Your task to perform on an android device: turn on data saver in the chrome app Image 0: 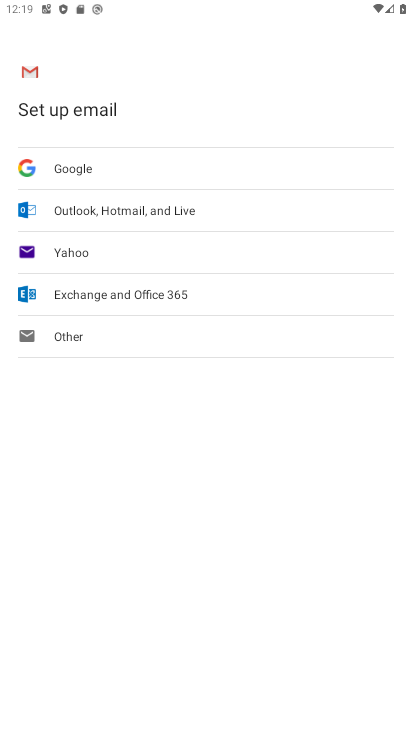
Step 0: press back button
Your task to perform on an android device: turn on data saver in the chrome app Image 1: 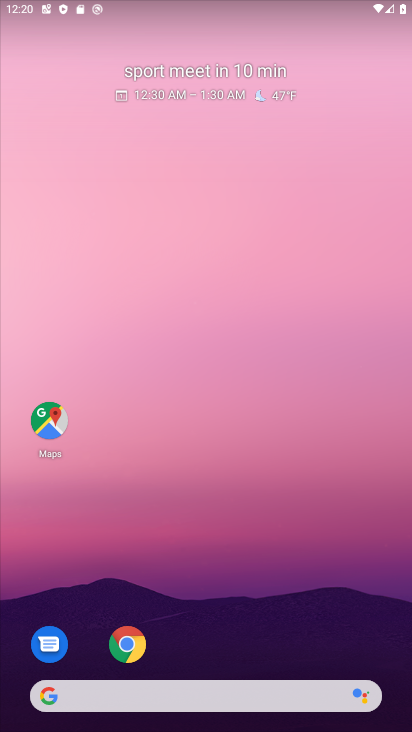
Step 1: click (124, 631)
Your task to perform on an android device: turn on data saver in the chrome app Image 2: 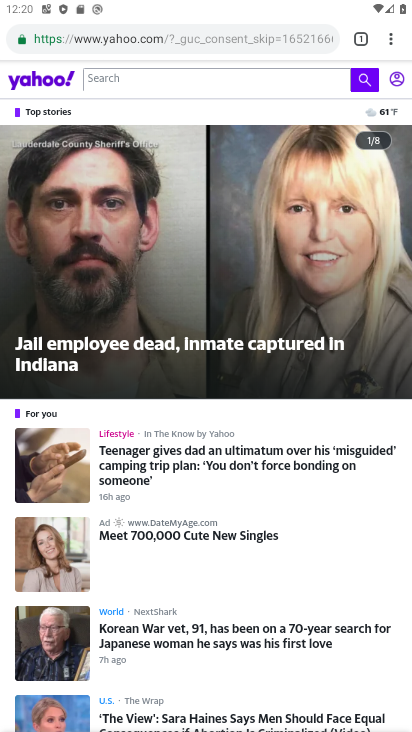
Step 2: click (371, 25)
Your task to perform on an android device: turn on data saver in the chrome app Image 3: 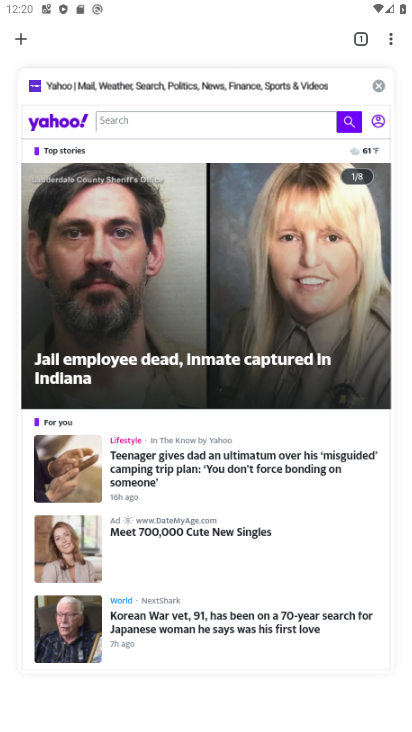
Step 3: click (185, 134)
Your task to perform on an android device: turn on data saver in the chrome app Image 4: 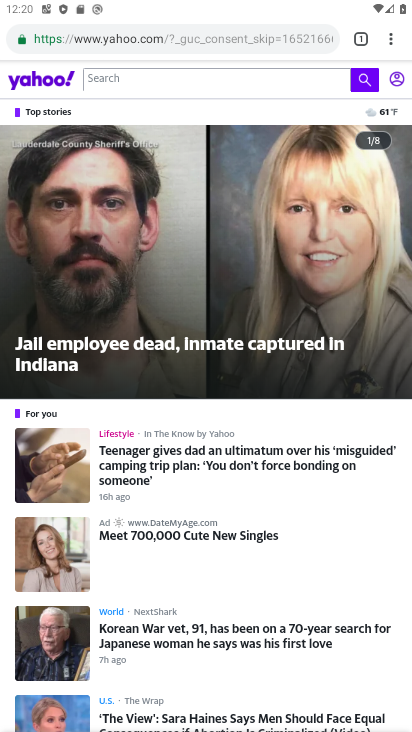
Step 4: drag from (396, 34) to (258, 460)
Your task to perform on an android device: turn on data saver in the chrome app Image 5: 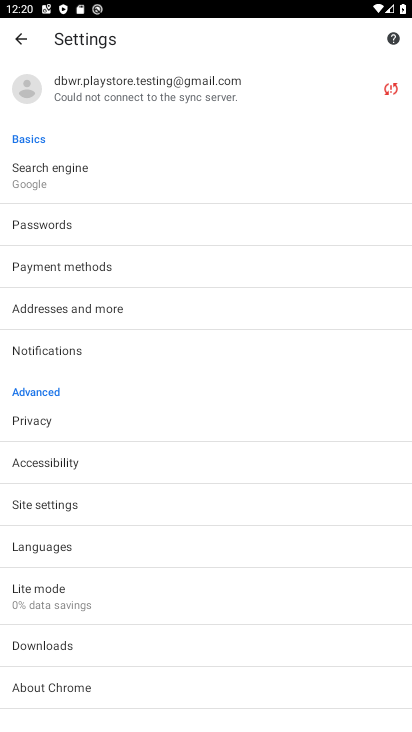
Step 5: click (67, 596)
Your task to perform on an android device: turn on data saver in the chrome app Image 6: 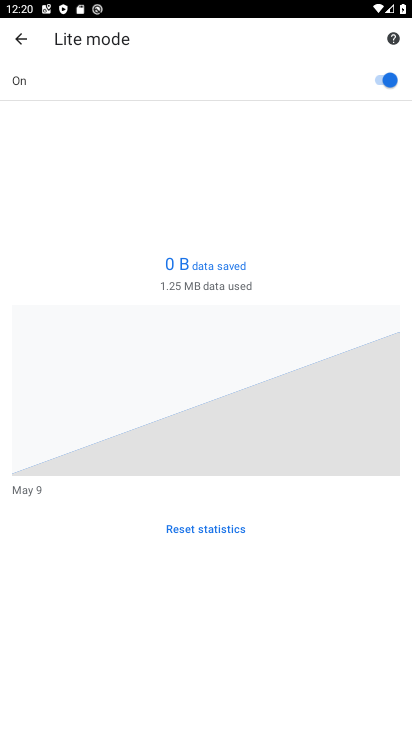
Step 6: task complete